Your task to perform on an android device: set default search engine in the chrome app Image 0: 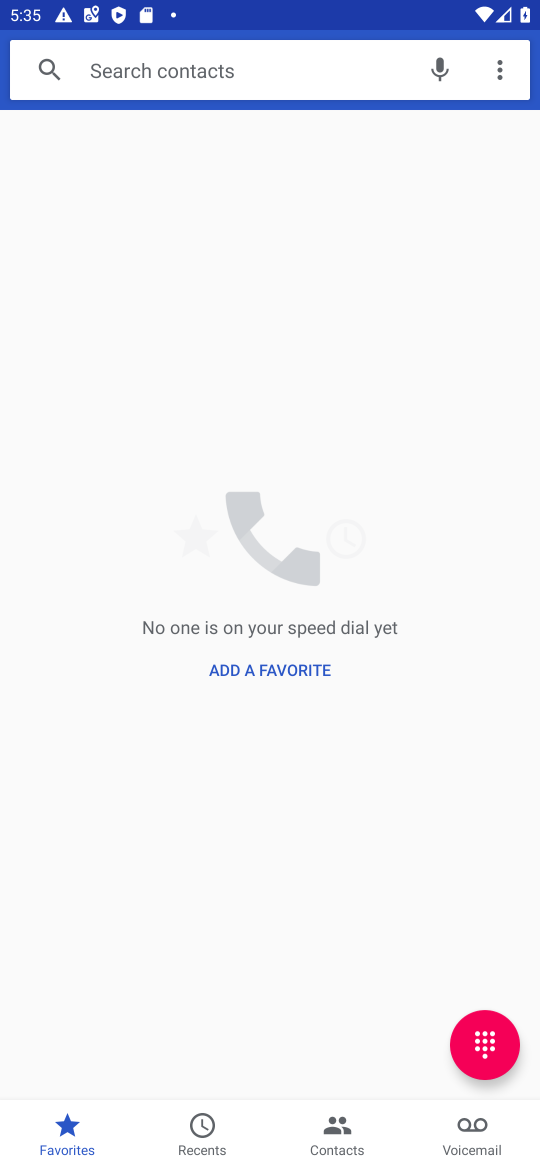
Step 0: press home button
Your task to perform on an android device: set default search engine in the chrome app Image 1: 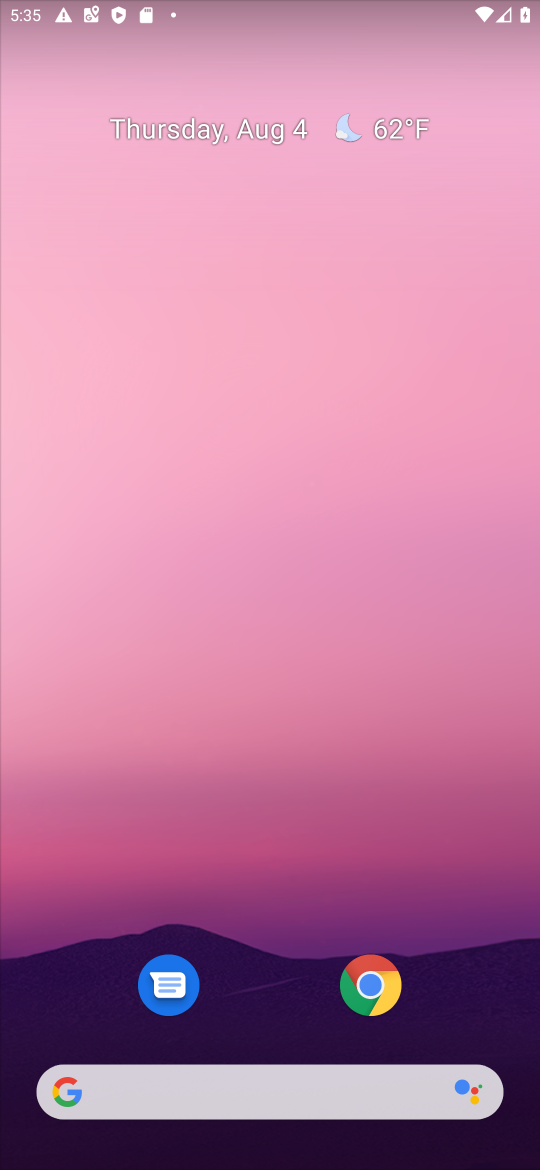
Step 1: click (367, 972)
Your task to perform on an android device: set default search engine in the chrome app Image 2: 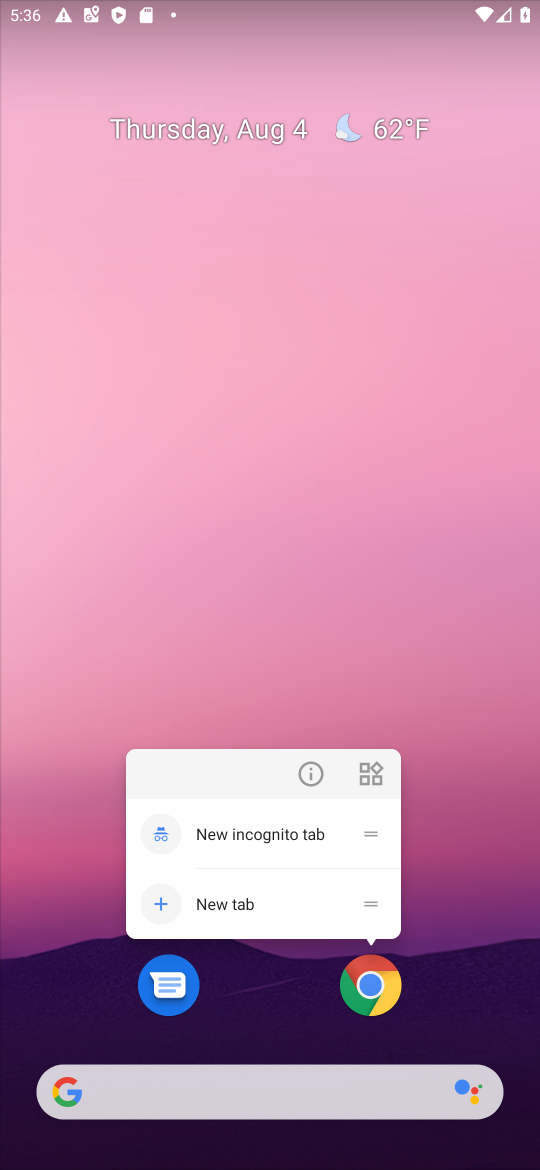
Step 2: click (393, 988)
Your task to perform on an android device: set default search engine in the chrome app Image 3: 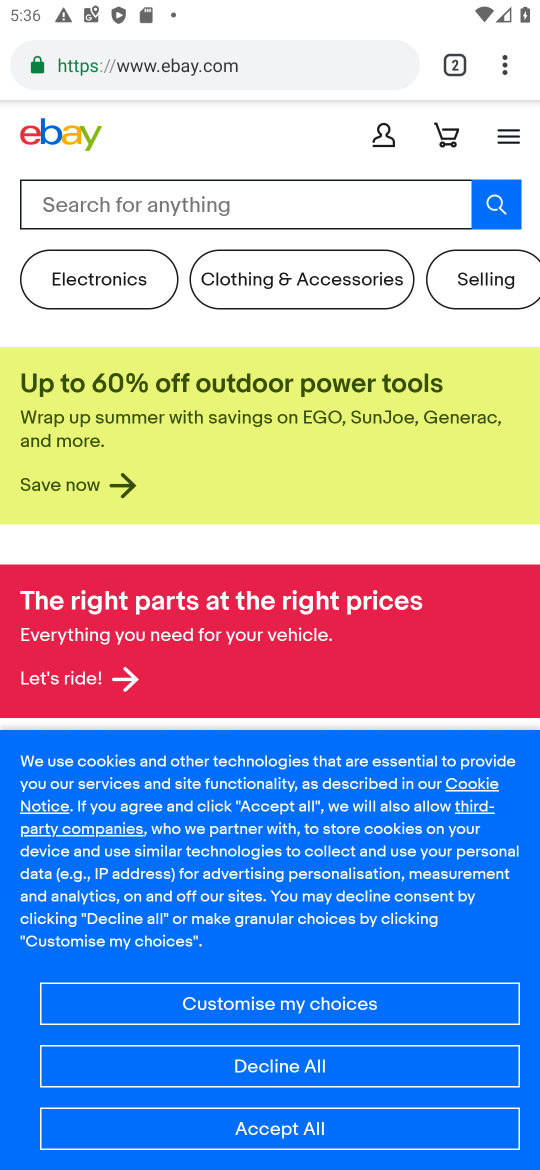
Step 3: drag from (504, 79) to (440, 835)
Your task to perform on an android device: set default search engine in the chrome app Image 4: 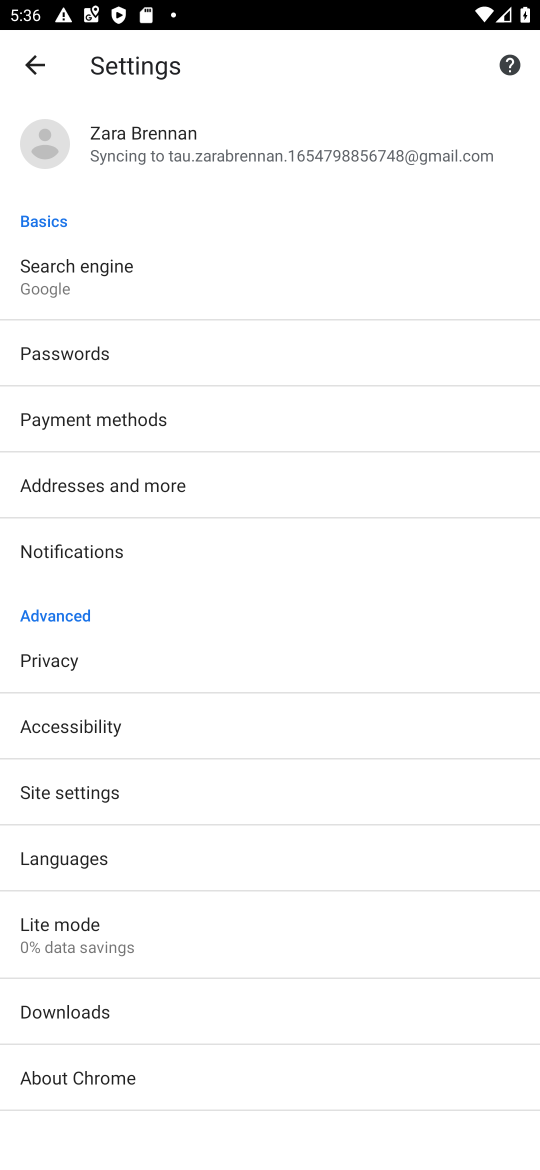
Step 4: click (100, 277)
Your task to perform on an android device: set default search engine in the chrome app Image 5: 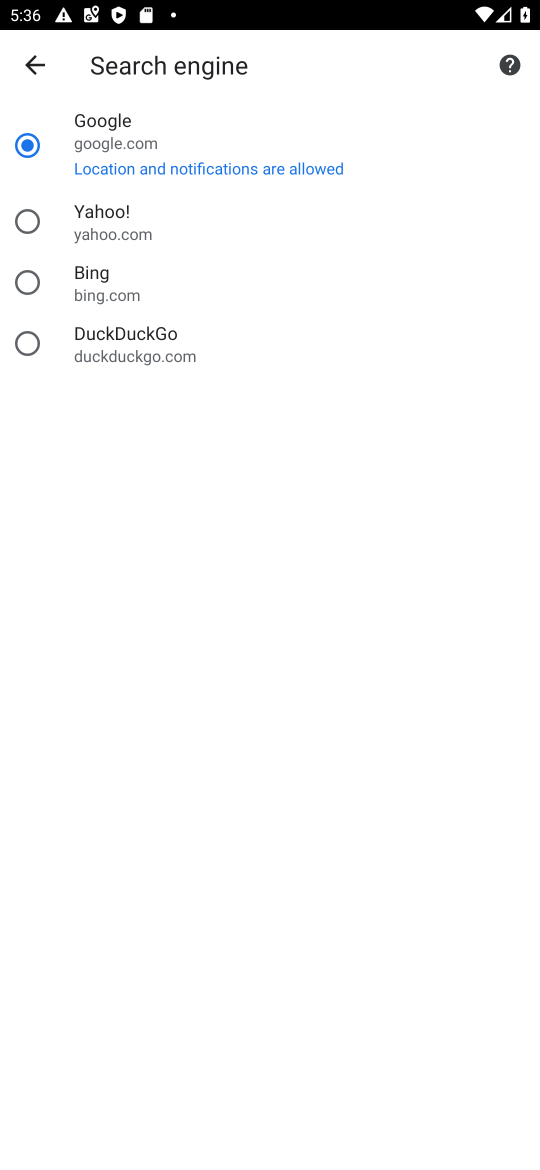
Step 5: click (108, 227)
Your task to perform on an android device: set default search engine in the chrome app Image 6: 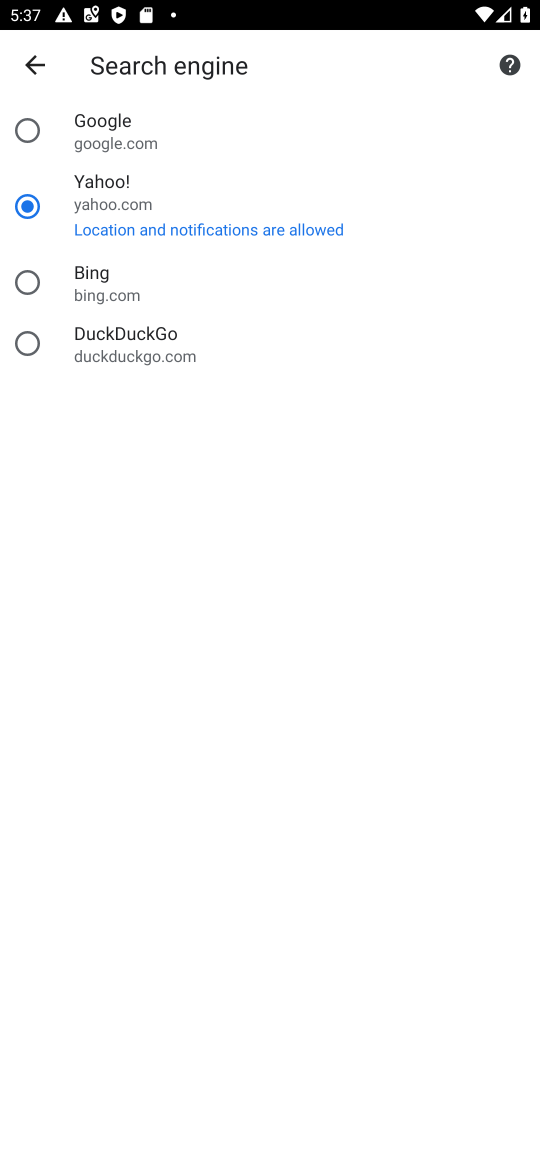
Step 6: task complete